Your task to perform on an android device: allow cookies in the chrome app Image 0: 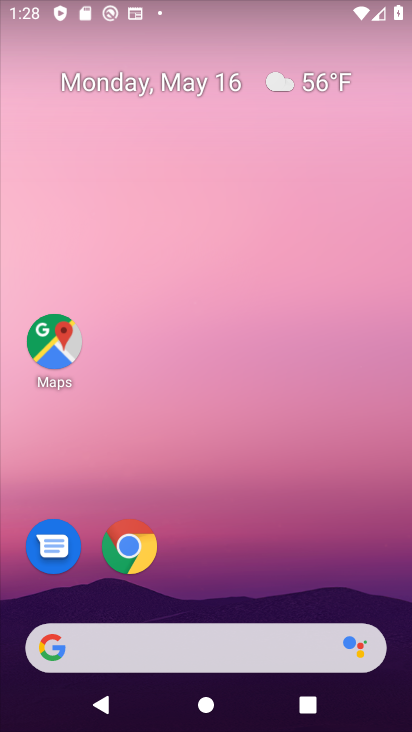
Step 0: drag from (234, 477) to (264, 101)
Your task to perform on an android device: allow cookies in the chrome app Image 1: 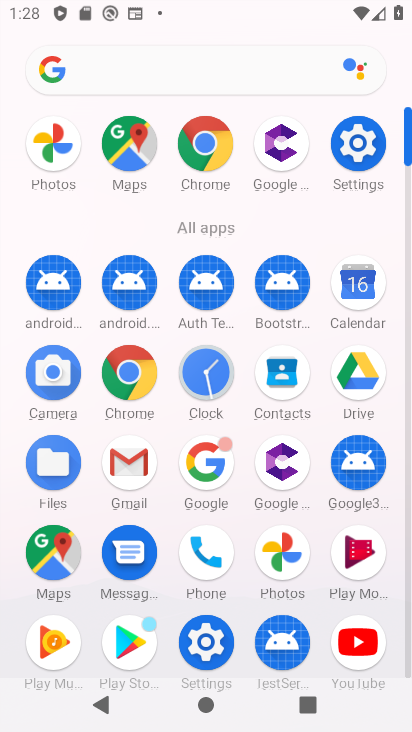
Step 1: click (134, 367)
Your task to perform on an android device: allow cookies in the chrome app Image 2: 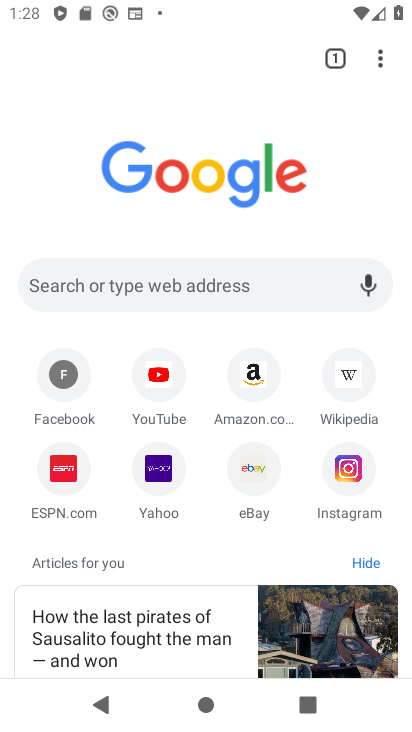
Step 2: drag from (384, 54) to (174, 494)
Your task to perform on an android device: allow cookies in the chrome app Image 3: 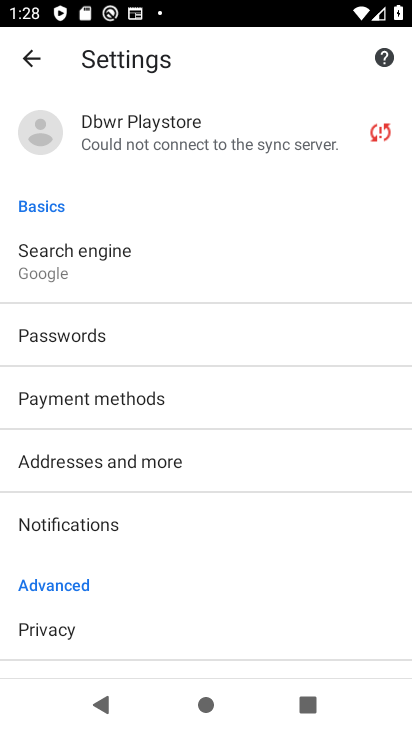
Step 3: drag from (203, 577) to (251, 201)
Your task to perform on an android device: allow cookies in the chrome app Image 4: 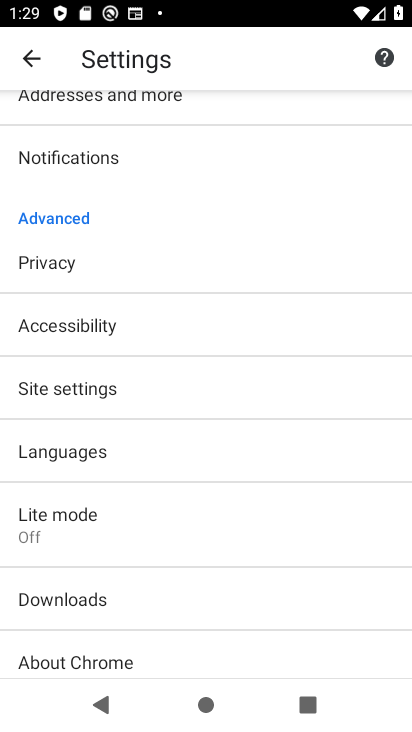
Step 4: click (75, 387)
Your task to perform on an android device: allow cookies in the chrome app Image 5: 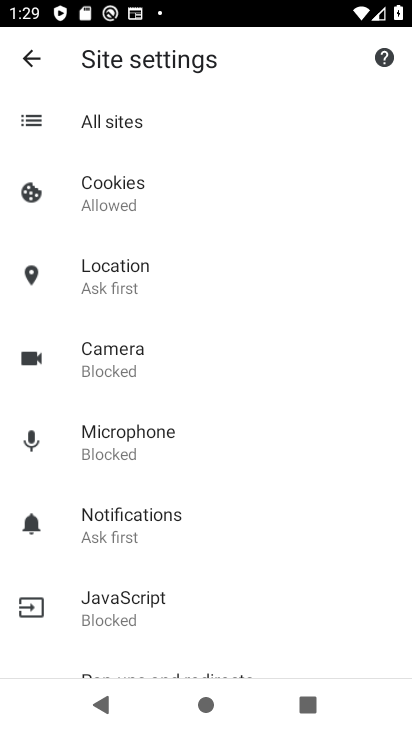
Step 5: click (143, 194)
Your task to perform on an android device: allow cookies in the chrome app Image 6: 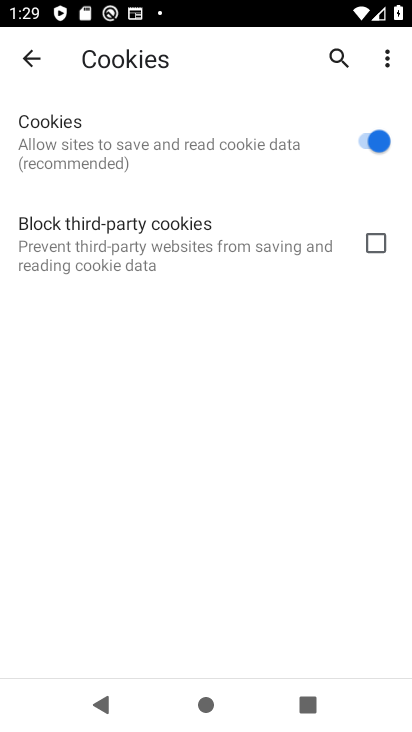
Step 6: task complete